Your task to perform on an android device: turn off data saver in the chrome app Image 0: 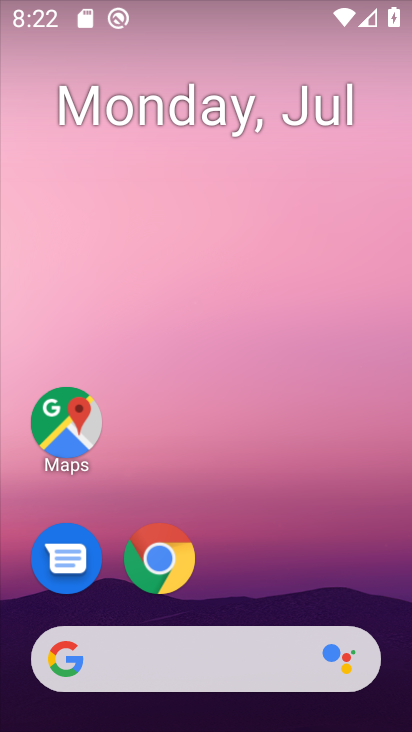
Step 0: drag from (338, 593) to (351, 85)
Your task to perform on an android device: turn off data saver in the chrome app Image 1: 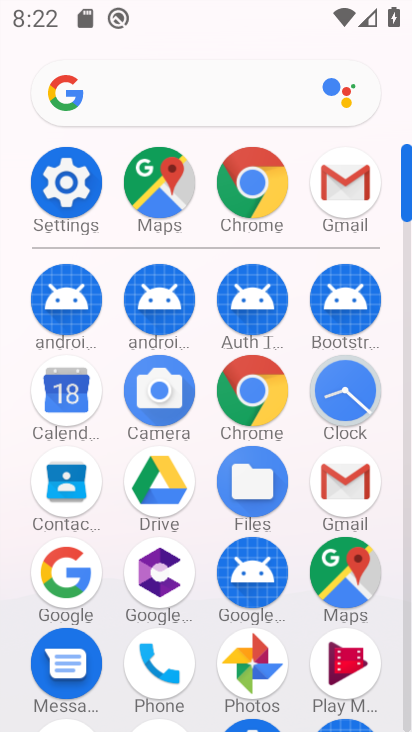
Step 1: click (247, 396)
Your task to perform on an android device: turn off data saver in the chrome app Image 2: 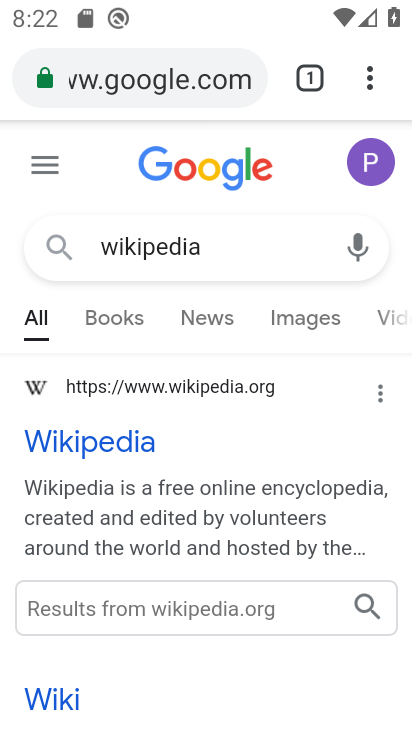
Step 2: click (370, 83)
Your task to perform on an android device: turn off data saver in the chrome app Image 3: 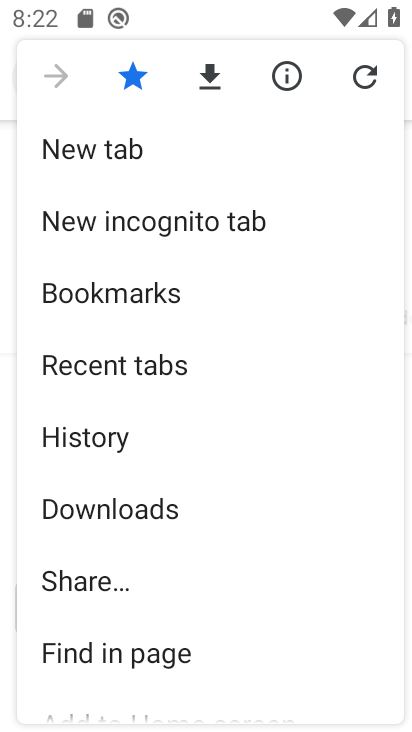
Step 3: drag from (320, 455) to (321, 359)
Your task to perform on an android device: turn off data saver in the chrome app Image 4: 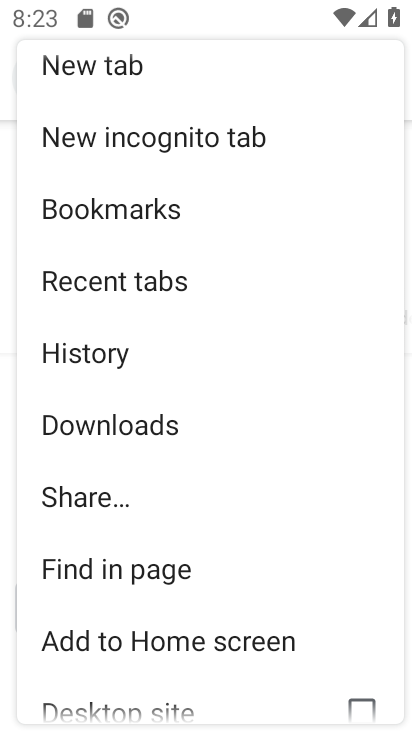
Step 4: drag from (313, 519) to (314, 425)
Your task to perform on an android device: turn off data saver in the chrome app Image 5: 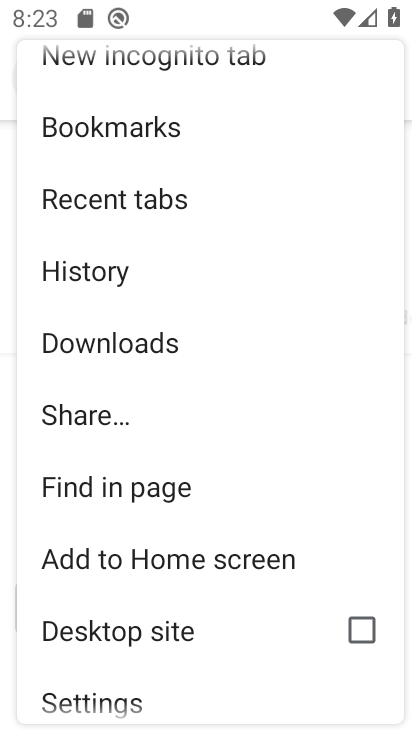
Step 5: drag from (310, 588) to (301, 376)
Your task to perform on an android device: turn off data saver in the chrome app Image 6: 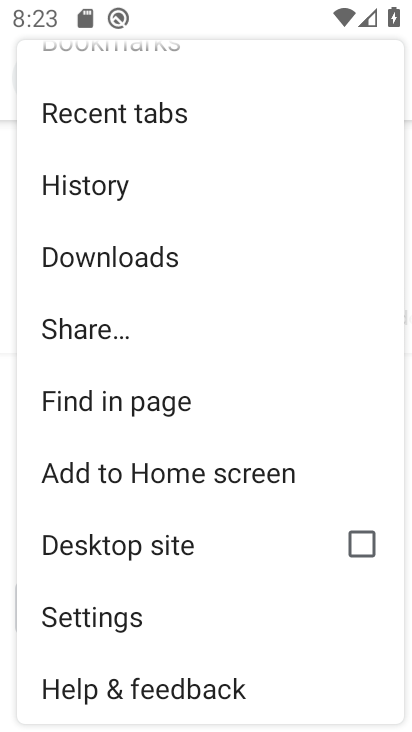
Step 6: click (198, 628)
Your task to perform on an android device: turn off data saver in the chrome app Image 7: 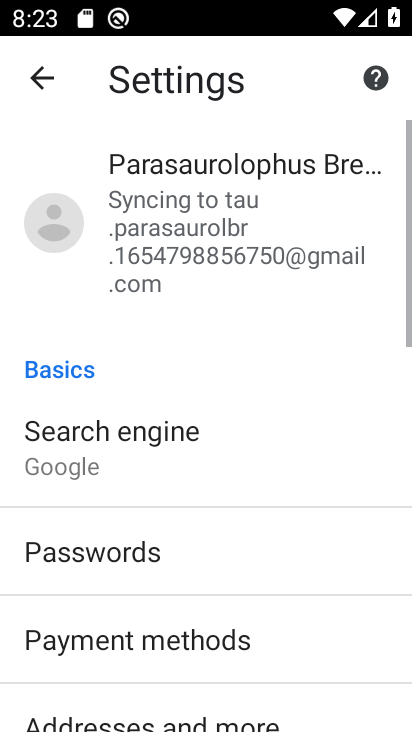
Step 7: task complete